Your task to perform on an android device: Open Youtube and go to "Your channel" Image 0: 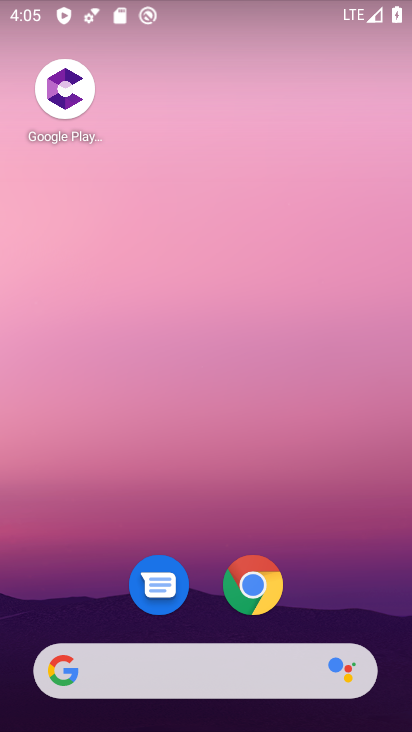
Step 0: drag from (237, 438) to (228, 1)
Your task to perform on an android device: Open Youtube and go to "Your channel" Image 1: 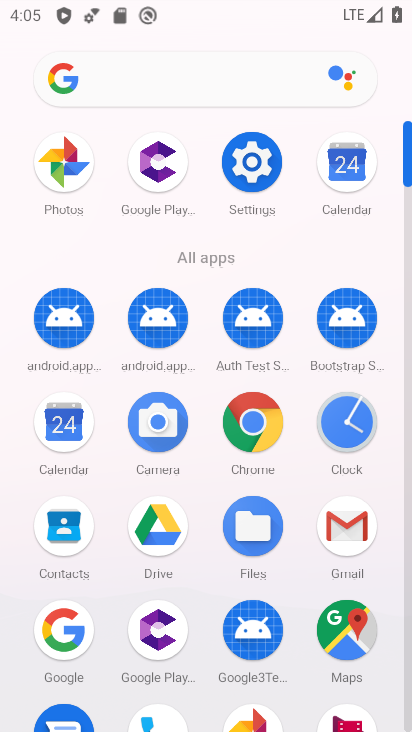
Step 1: drag from (206, 545) to (211, 231)
Your task to perform on an android device: Open Youtube and go to "Your channel" Image 2: 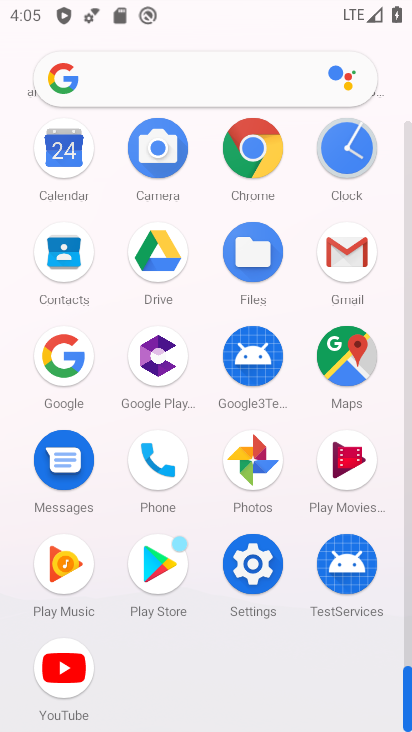
Step 2: click (73, 647)
Your task to perform on an android device: Open Youtube and go to "Your channel" Image 3: 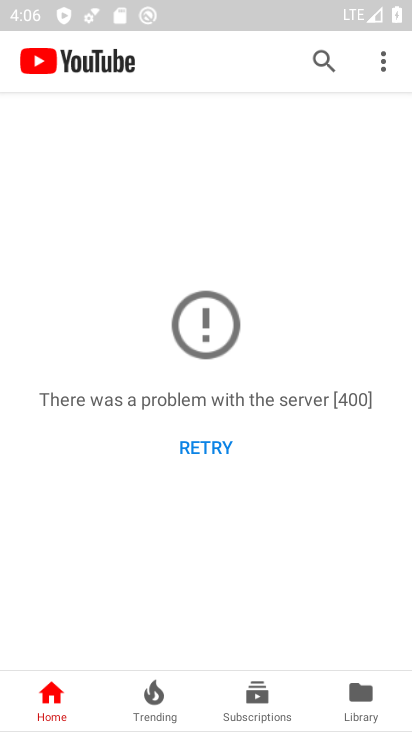
Step 3: click (382, 71)
Your task to perform on an android device: Open Youtube and go to "Your channel" Image 4: 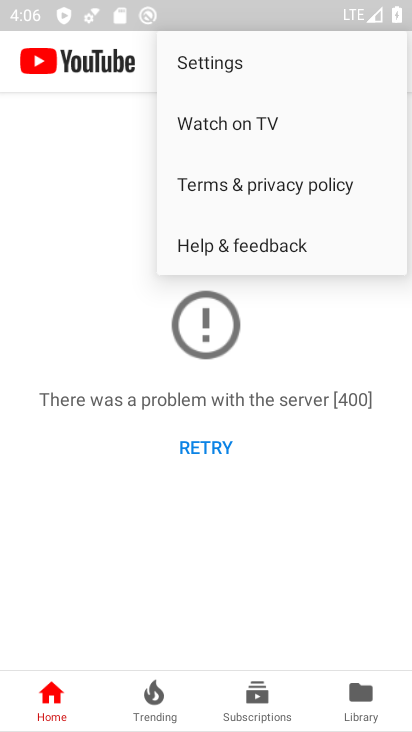
Step 4: click (334, 49)
Your task to perform on an android device: Open Youtube and go to "Your channel" Image 5: 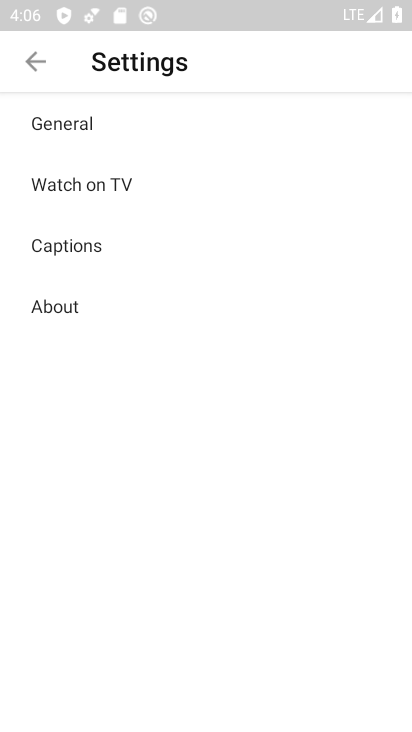
Step 5: click (35, 56)
Your task to perform on an android device: Open Youtube and go to "Your channel" Image 6: 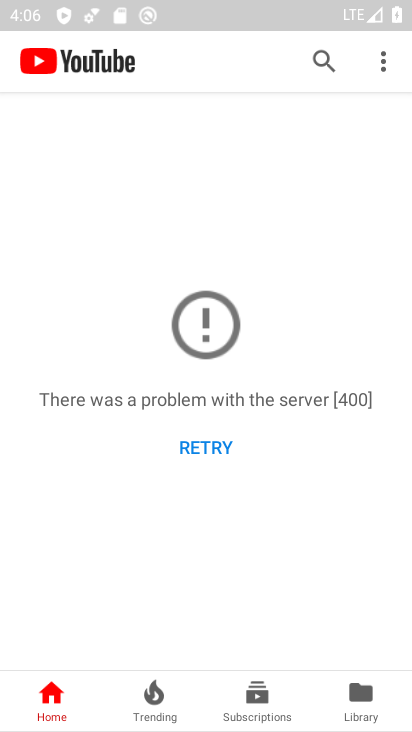
Step 6: click (190, 439)
Your task to perform on an android device: Open Youtube and go to "Your channel" Image 7: 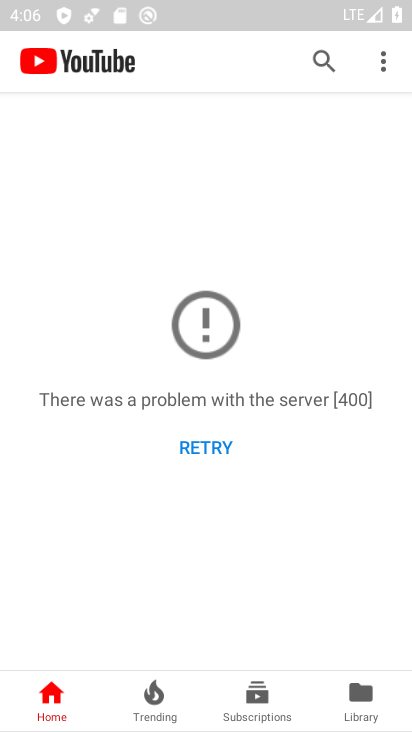
Step 7: click (195, 439)
Your task to perform on an android device: Open Youtube and go to "Your channel" Image 8: 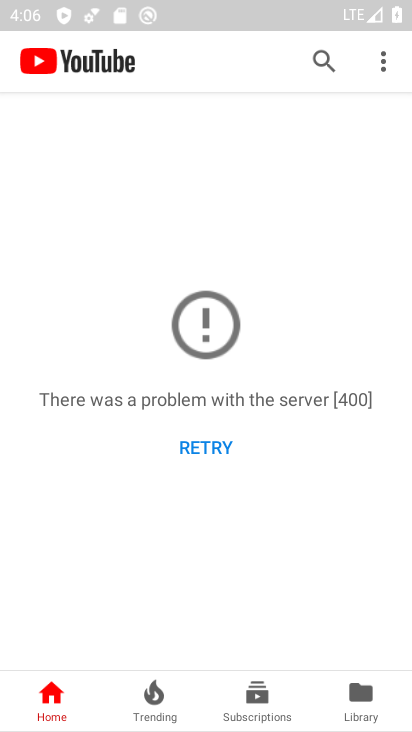
Step 8: click (197, 439)
Your task to perform on an android device: Open Youtube and go to "Your channel" Image 9: 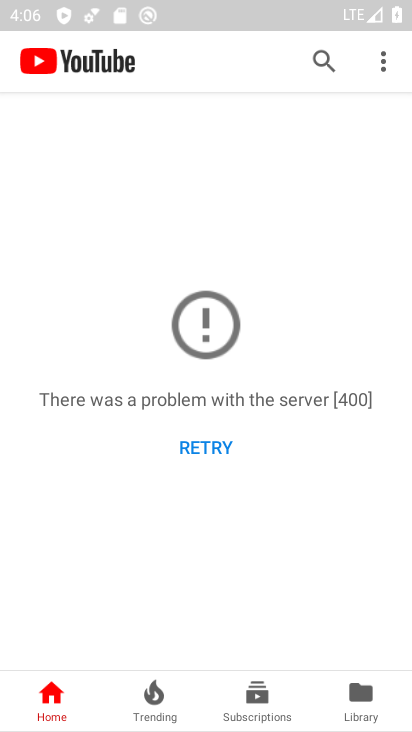
Step 9: task complete